Your task to perform on an android device: Open the stopwatch Image 0: 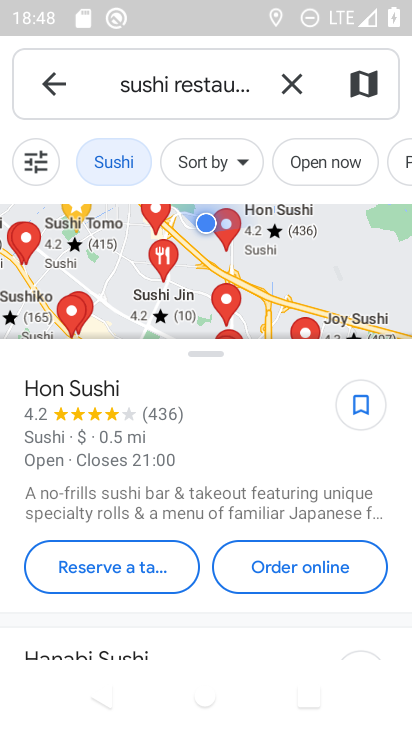
Step 0: press home button
Your task to perform on an android device: Open the stopwatch Image 1: 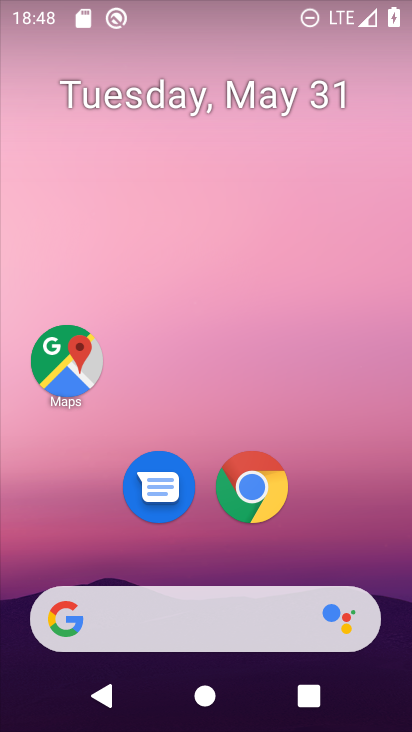
Step 1: drag from (338, 535) to (218, 139)
Your task to perform on an android device: Open the stopwatch Image 2: 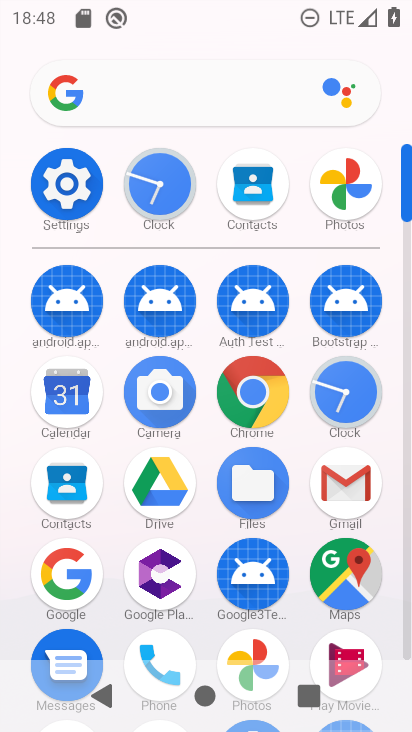
Step 2: click (340, 397)
Your task to perform on an android device: Open the stopwatch Image 3: 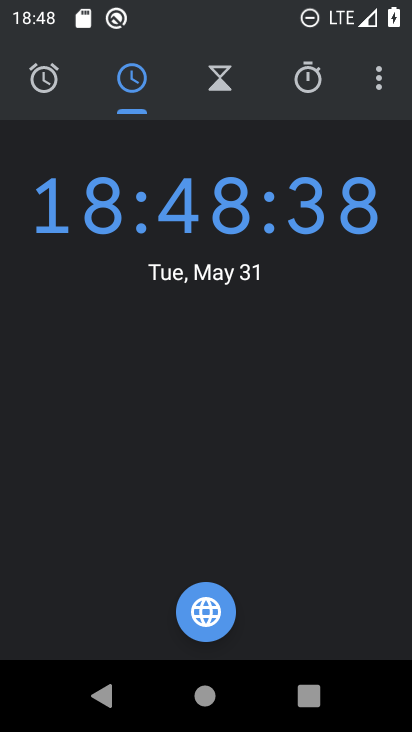
Step 3: click (313, 77)
Your task to perform on an android device: Open the stopwatch Image 4: 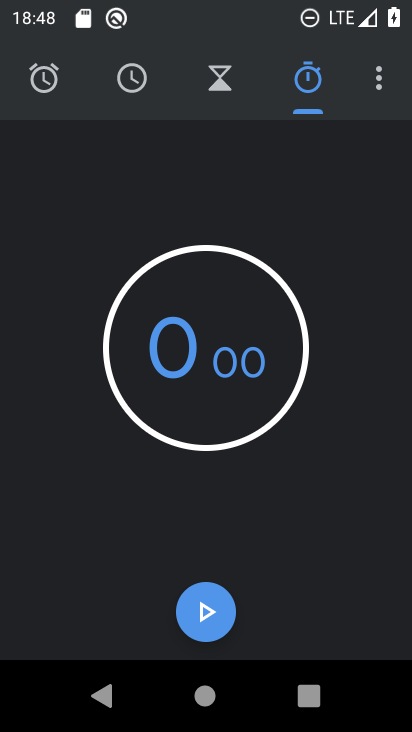
Step 4: task complete